Your task to perform on an android device: check out phone information Image 0: 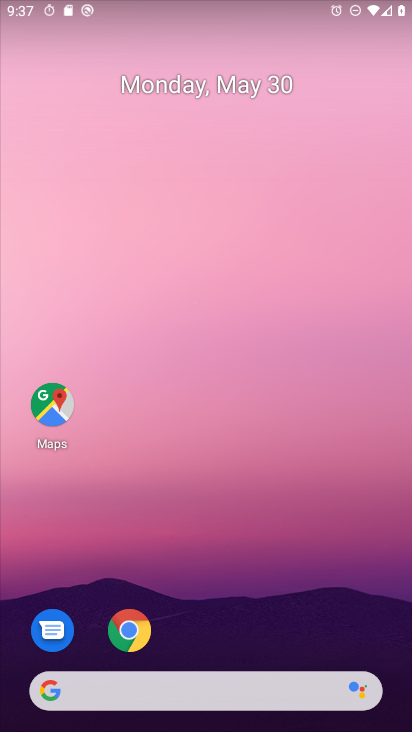
Step 0: drag from (381, 636) to (315, 53)
Your task to perform on an android device: check out phone information Image 1: 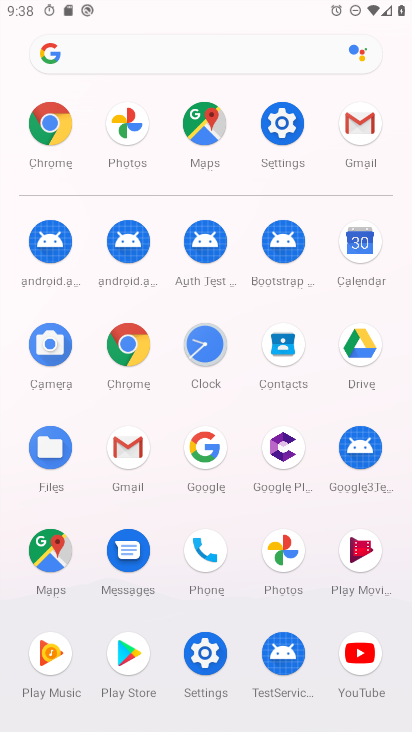
Step 1: click (288, 131)
Your task to perform on an android device: check out phone information Image 2: 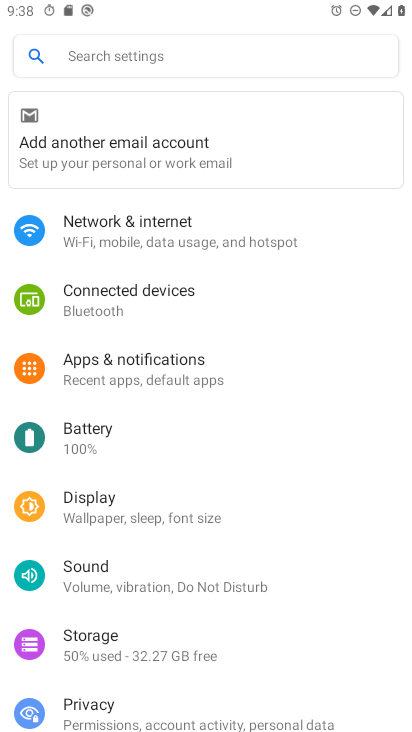
Step 2: task complete